Your task to perform on an android device: Open battery settings Image 0: 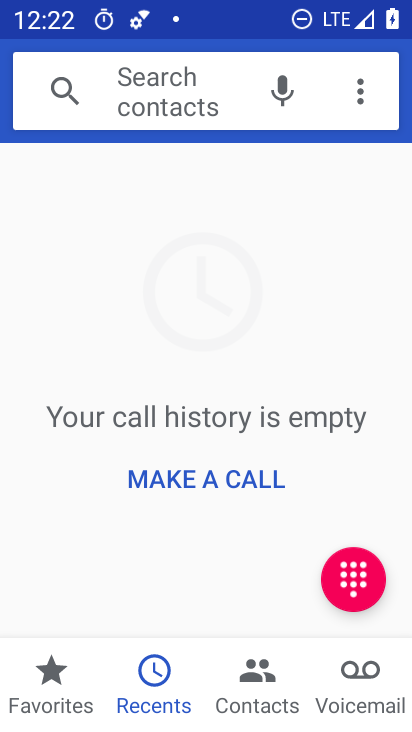
Step 0: press home button
Your task to perform on an android device: Open battery settings Image 1: 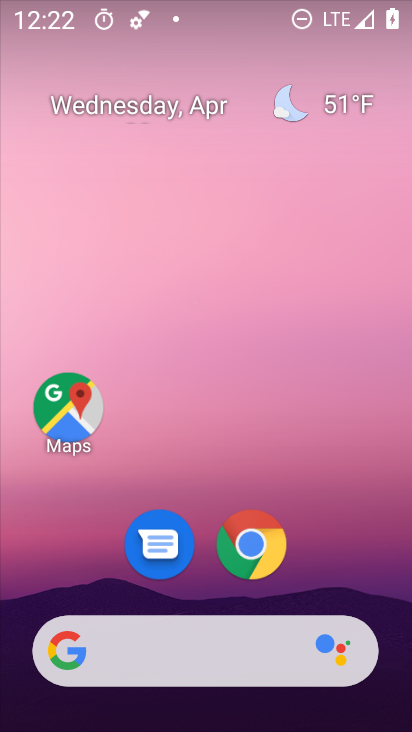
Step 1: drag from (344, 547) to (363, 102)
Your task to perform on an android device: Open battery settings Image 2: 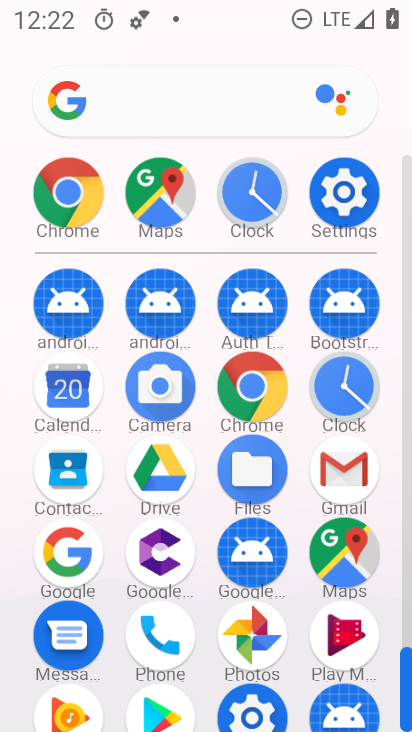
Step 2: click (339, 190)
Your task to perform on an android device: Open battery settings Image 3: 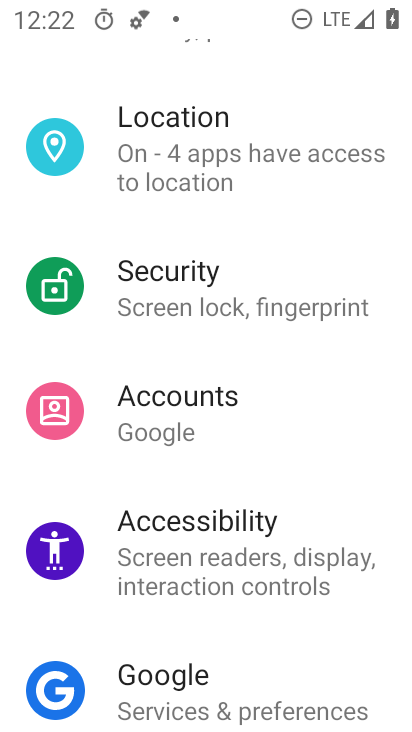
Step 3: drag from (378, 357) to (374, 435)
Your task to perform on an android device: Open battery settings Image 4: 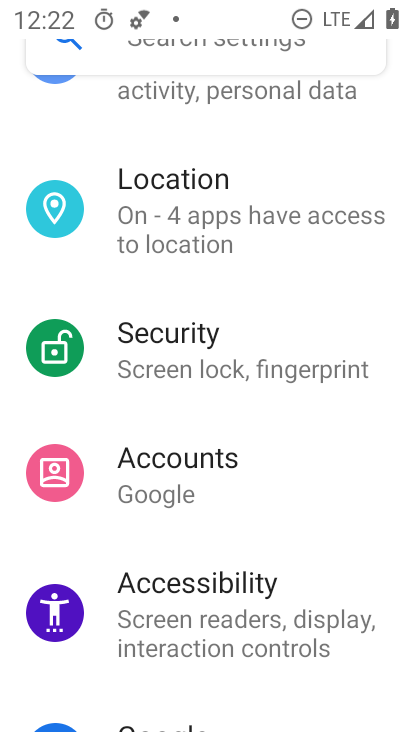
Step 4: drag from (384, 290) to (374, 413)
Your task to perform on an android device: Open battery settings Image 5: 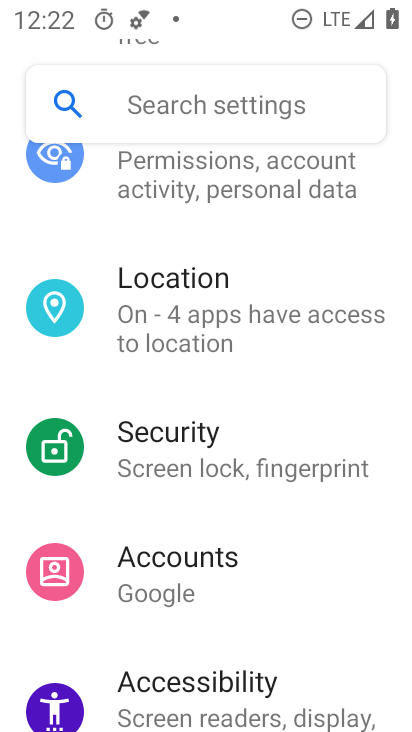
Step 5: drag from (394, 281) to (381, 394)
Your task to perform on an android device: Open battery settings Image 6: 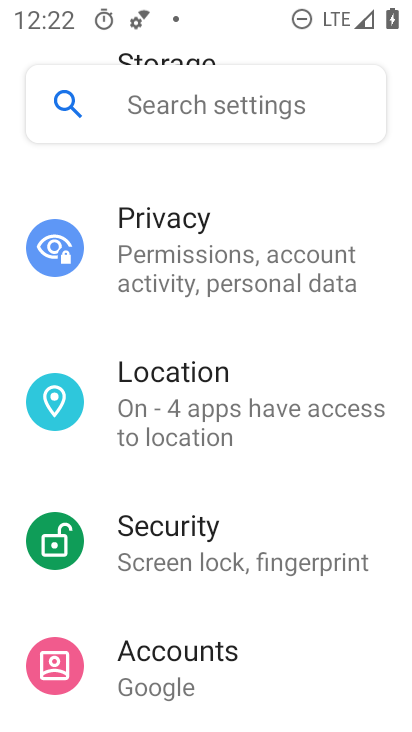
Step 6: drag from (390, 274) to (385, 376)
Your task to perform on an android device: Open battery settings Image 7: 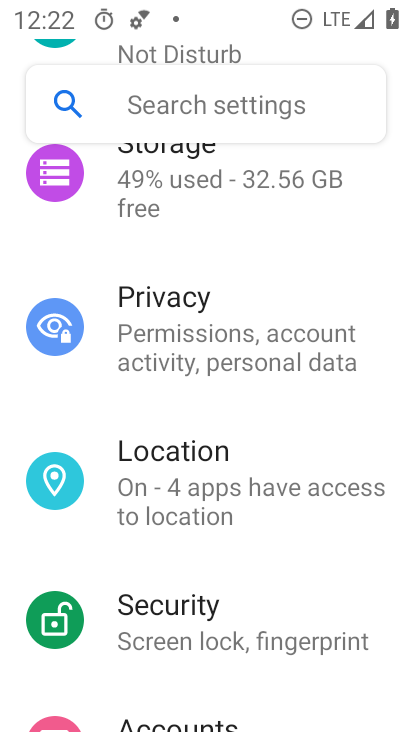
Step 7: drag from (379, 255) to (374, 380)
Your task to perform on an android device: Open battery settings Image 8: 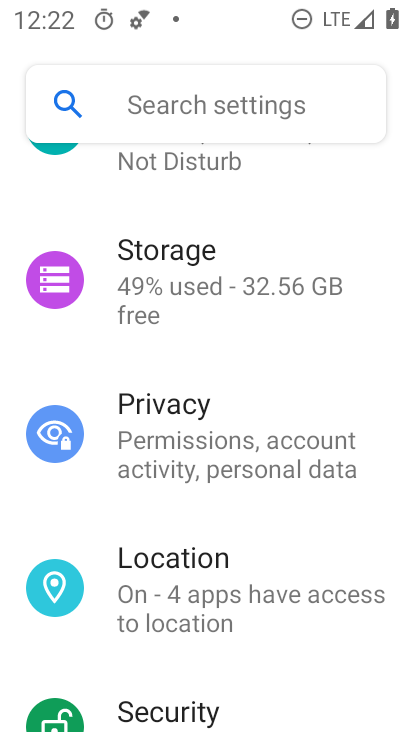
Step 8: drag from (380, 260) to (382, 372)
Your task to perform on an android device: Open battery settings Image 9: 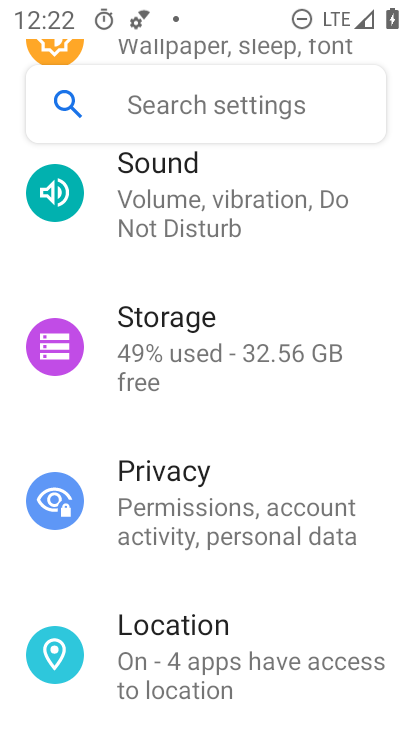
Step 9: drag from (374, 265) to (373, 387)
Your task to perform on an android device: Open battery settings Image 10: 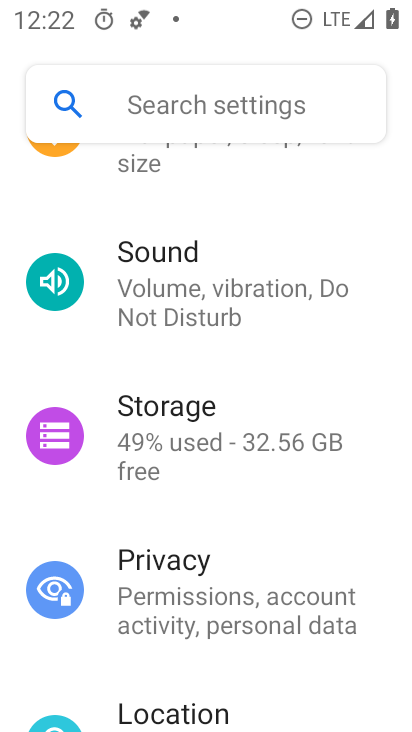
Step 10: drag from (389, 252) to (385, 365)
Your task to perform on an android device: Open battery settings Image 11: 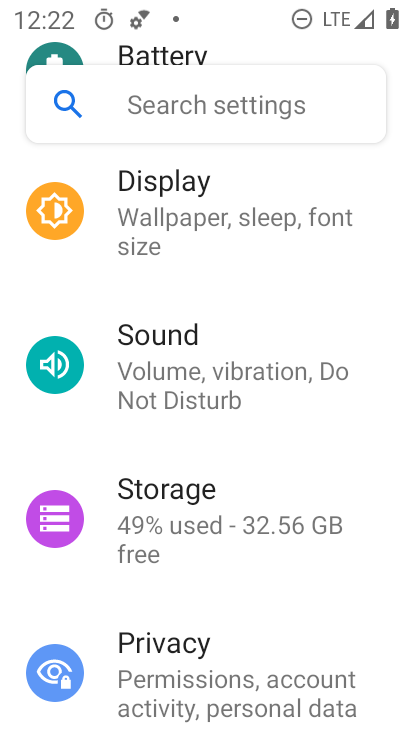
Step 11: drag from (379, 253) to (371, 370)
Your task to perform on an android device: Open battery settings Image 12: 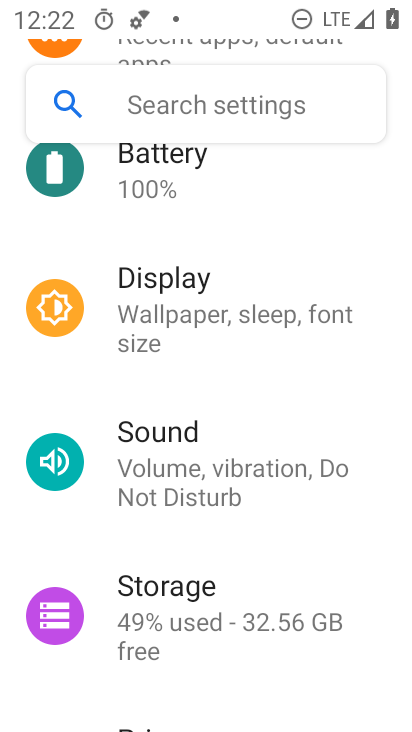
Step 12: drag from (387, 268) to (368, 381)
Your task to perform on an android device: Open battery settings Image 13: 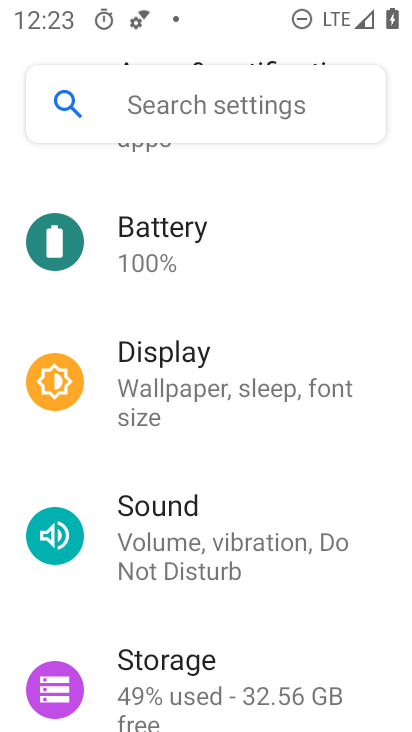
Step 13: drag from (379, 277) to (358, 435)
Your task to perform on an android device: Open battery settings Image 14: 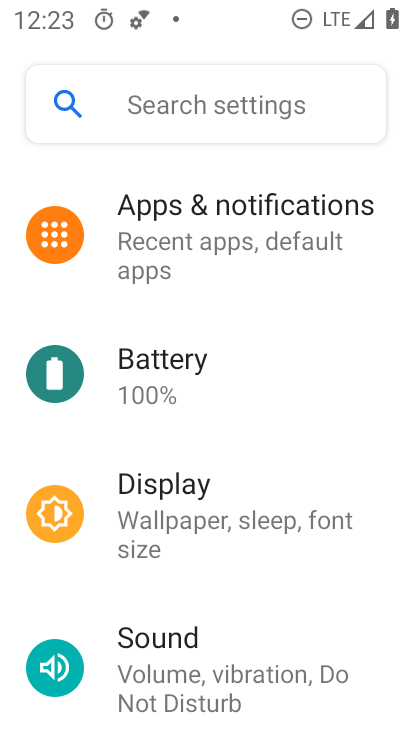
Step 14: drag from (362, 334) to (358, 411)
Your task to perform on an android device: Open battery settings Image 15: 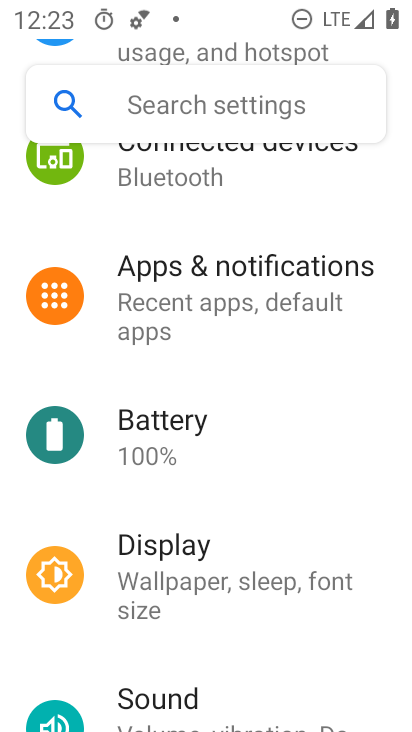
Step 15: click (217, 449)
Your task to perform on an android device: Open battery settings Image 16: 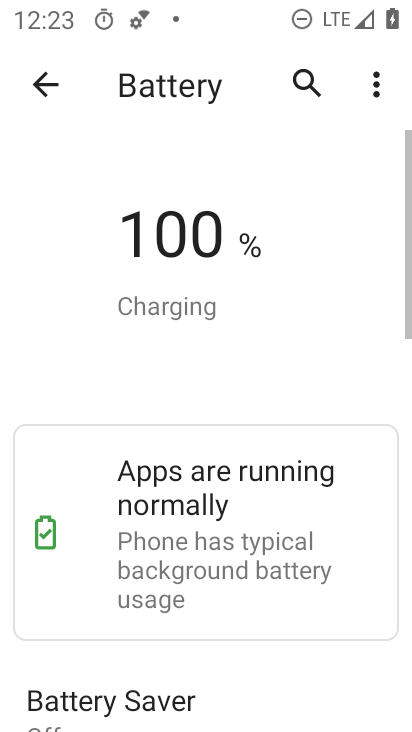
Step 16: task complete